Your task to perform on an android device: Open wifi settings Image 0: 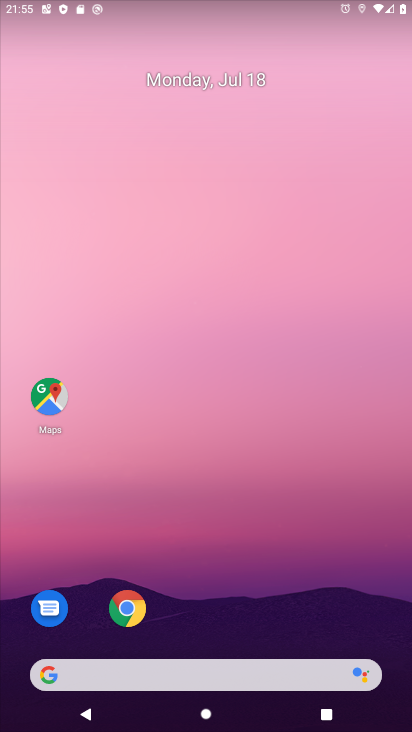
Step 0: drag from (12, 697) to (314, 8)
Your task to perform on an android device: Open wifi settings Image 1: 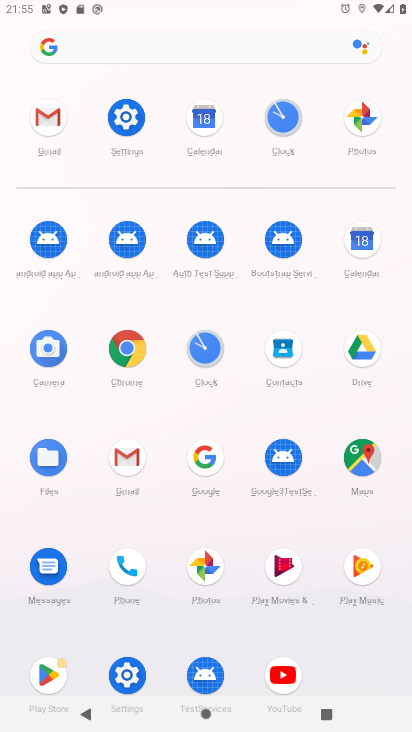
Step 1: click (119, 662)
Your task to perform on an android device: Open wifi settings Image 2: 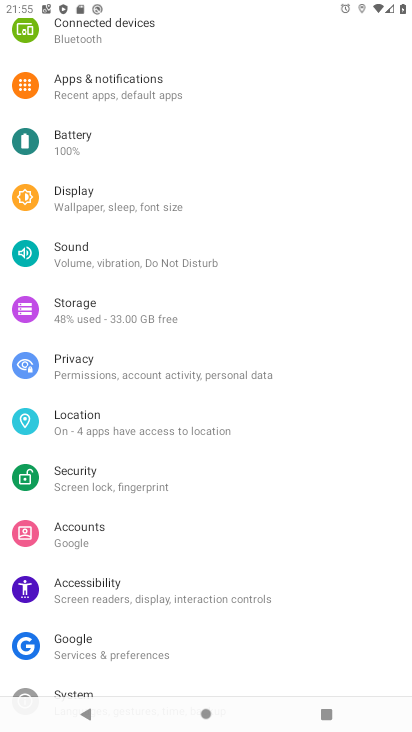
Step 2: drag from (224, 278) to (260, 720)
Your task to perform on an android device: Open wifi settings Image 3: 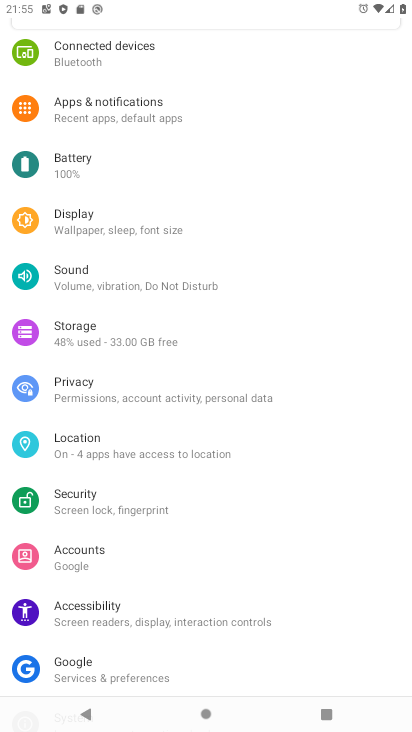
Step 3: click (96, 112)
Your task to perform on an android device: Open wifi settings Image 4: 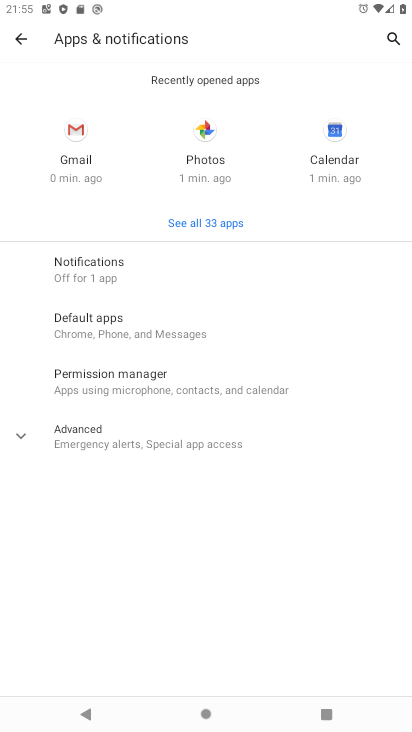
Step 4: click (23, 36)
Your task to perform on an android device: Open wifi settings Image 5: 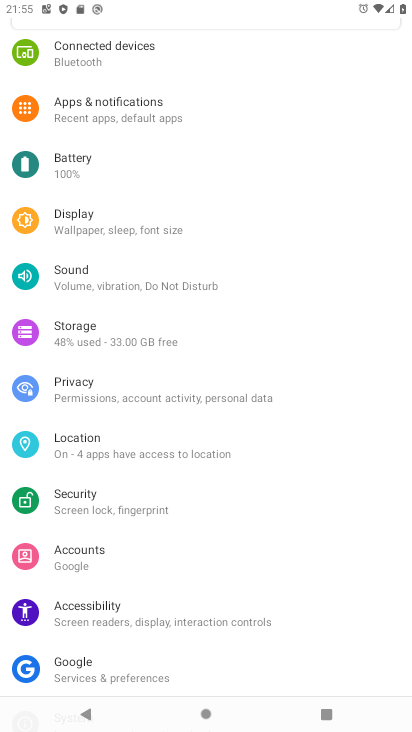
Step 5: drag from (233, 78) to (248, 705)
Your task to perform on an android device: Open wifi settings Image 6: 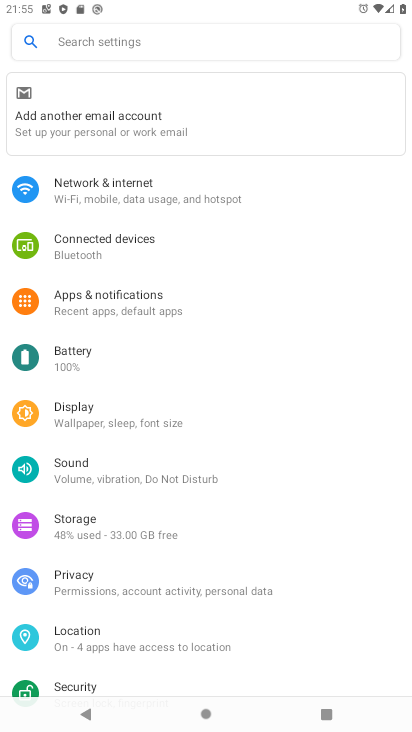
Step 6: click (161, 189)
Your task to perform on an android device: Open wifi settings Image 7: 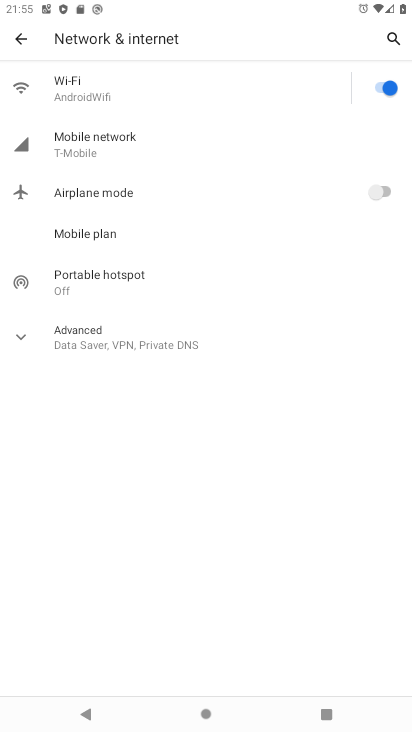
Step 7: task complete